Your task to perform on an android device: toggle notifications settings in the gmail app Image 0: 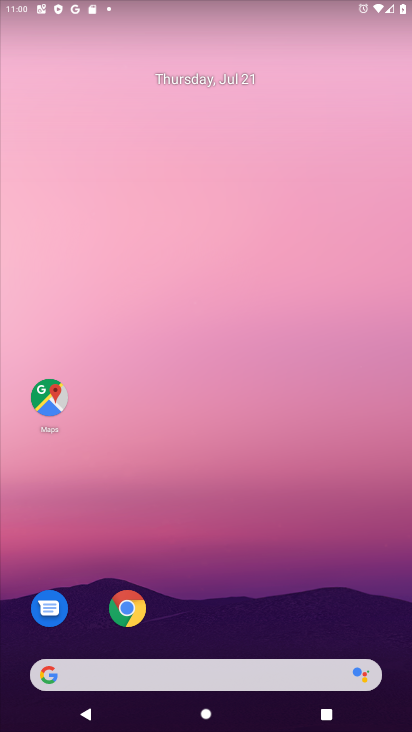
Step 0: drag from (353, 607) to (206, 134)
Your task to perform on an android device: toggle notifications settings in the gmail app Image 1: 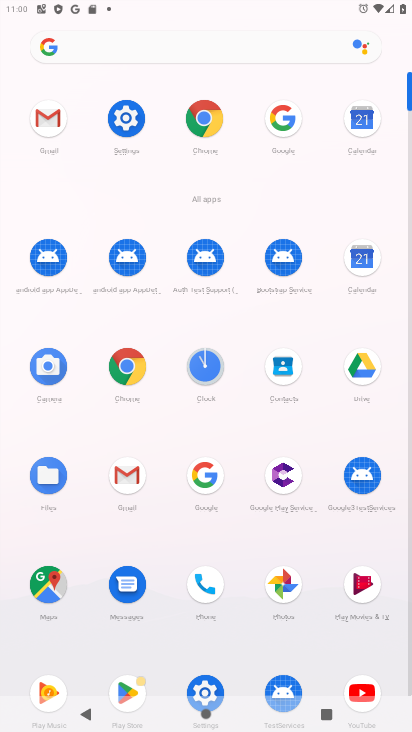
Step 1: click (133, 481)
Your task to perform on an android device: toggle notifications settings in the gmail app Image 2: 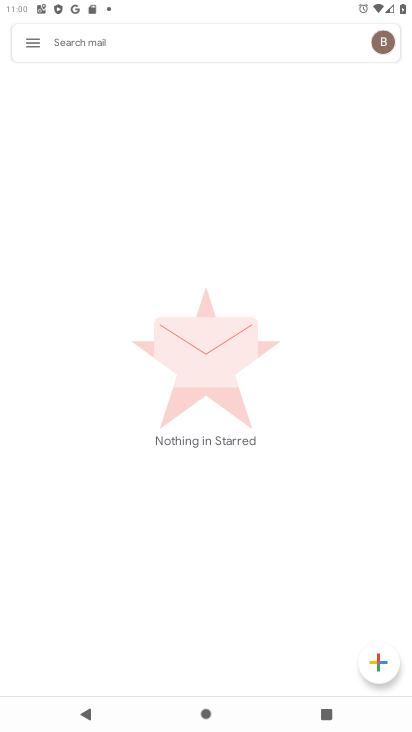
Step 2: click (34, 39)
Your task to perform on an android device: toggle notifications settings in the gmail app Image 3: 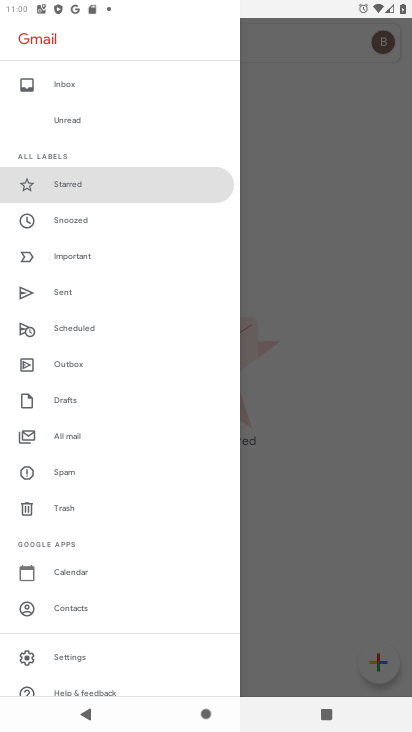
Step 3: click (64, 653)
Your task to perform on an android device: toggle notifications settings in the gmail app Image 4: 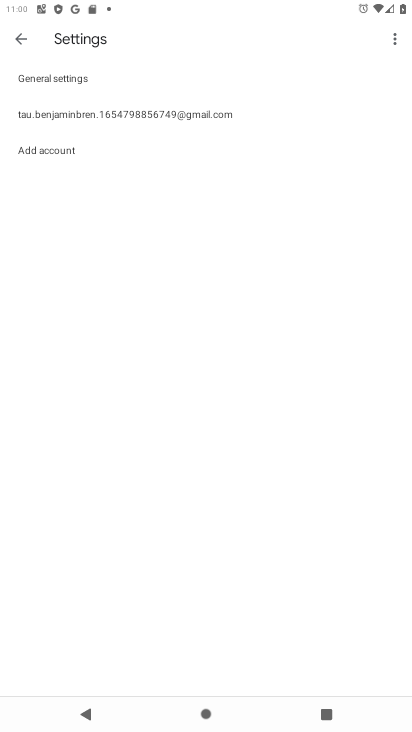
Step 4: click (100, 114)
Your task to perform on an android device: toggle notifications settings in the gmail app Image 5: 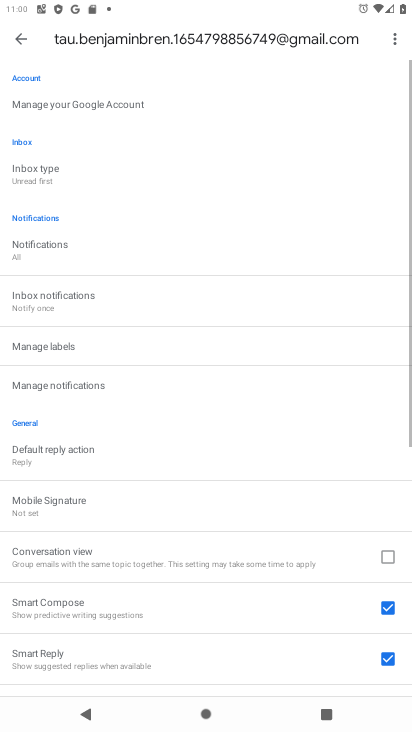
Step 5: click (20, 269)
Your task to perform on an android device: toggle notifications settings in the gmail app Image 6: 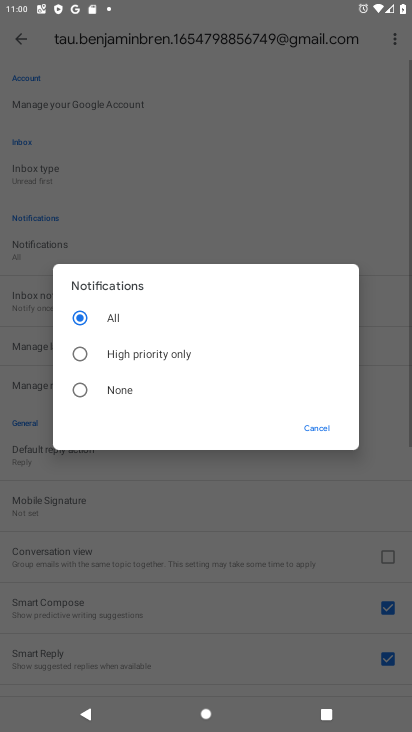
Step 6: click (118, 395)
Your task to perform on an android device: toggle notifications settings in the gmail app Image 7: 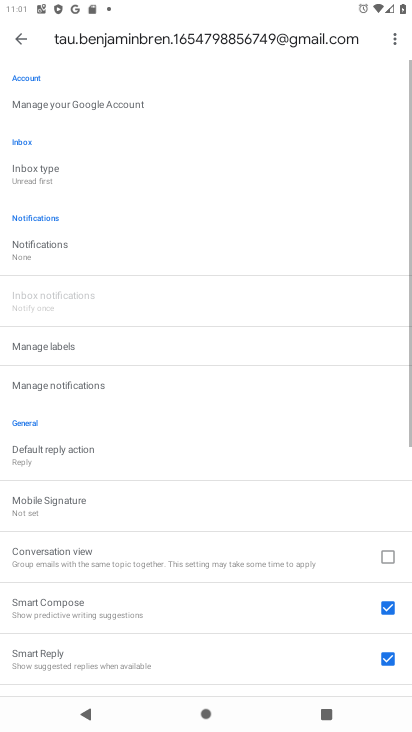
Step 7: task complete